Your task to perform on an android device: search for starred emails in the gmail app Image 0: 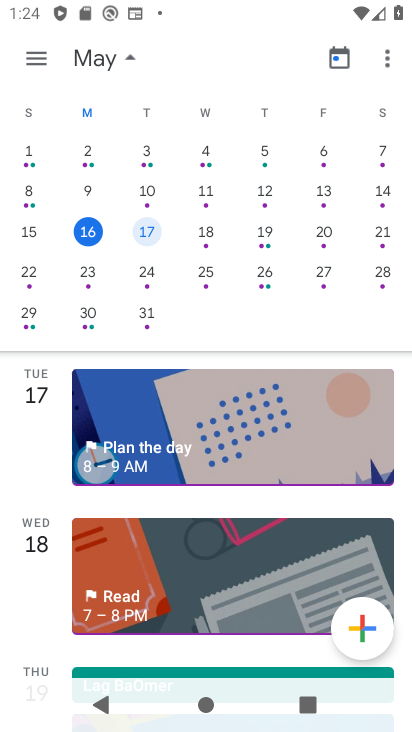
Step 0: press home button
Your task to perform on an android device: search for starred emails in the gmail app Image 1: 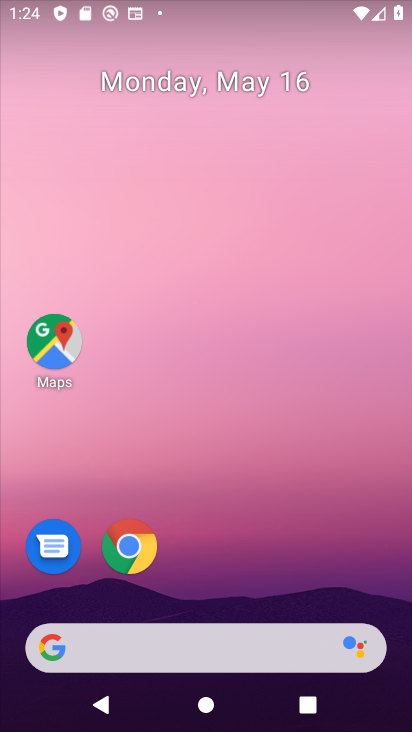
Step 1: drag from (174, 550) to (266, 139)
Your task to perform on an android device: search for starred emails in the gmail app Image 2: 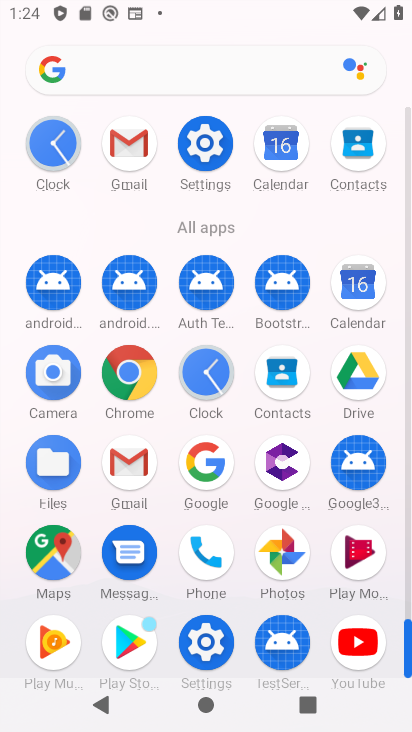
Step 2: click (135, 152)
Your task to perform on an android device: search for starred emails in the gmail app Image 3: 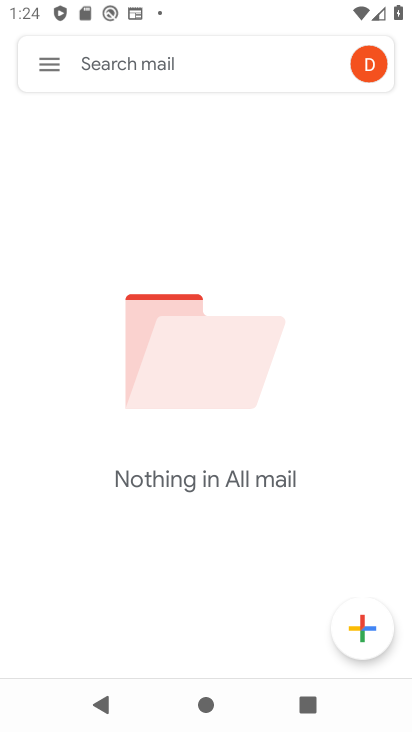
Step 3: click (54, 65)
Your task to perform on an android device: search for starred emails in the gmail app Image 4: 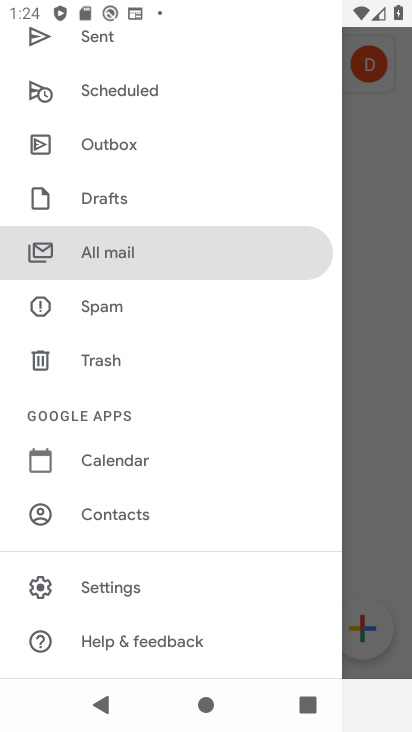
Step 4: drag from (193, 169) to (167, 622)
Your task to perform on an android device: search for starred emails in the gmail app Image 5: 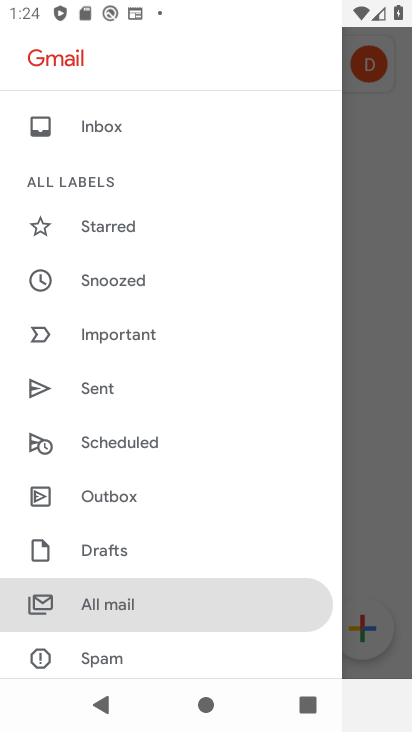
Step 5: click (107, 234)
Your task to perform on an android device: search for starred emails in the gmail app Image 6: 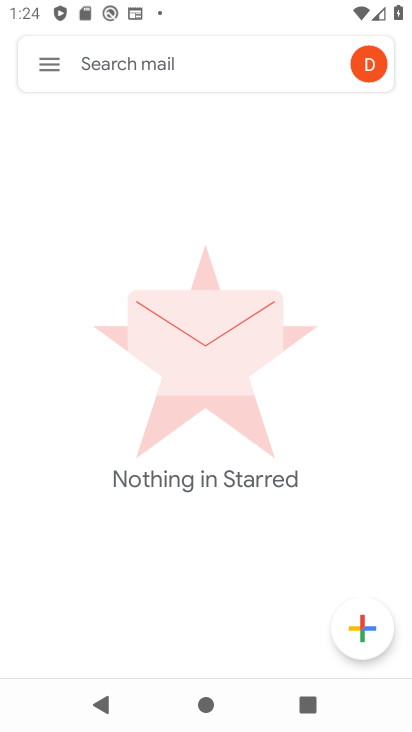
Step 6: task complete